Your task to perform on an android device: turn on improve location accuracy Image 0: 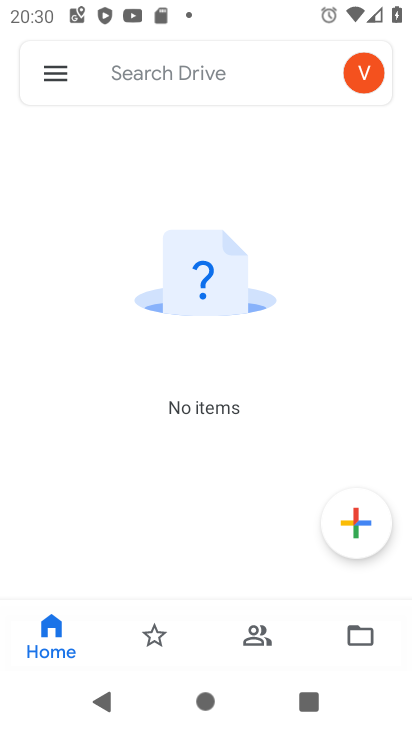
Step 0: press home button
Your task to perform on an android device: turn on improve location accuracy Image 1: 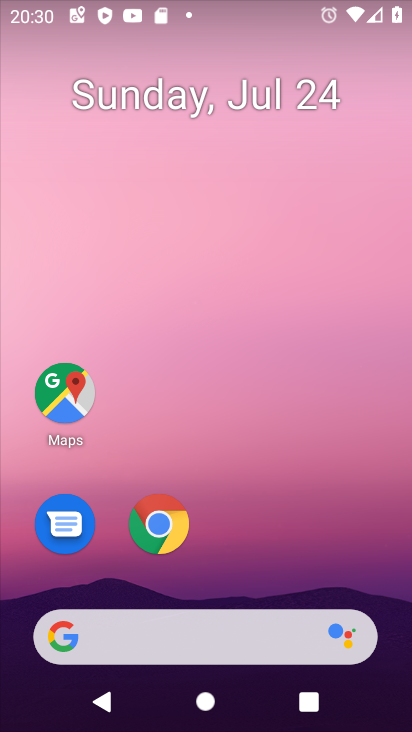
Step 1: drag from (237, 584) to (282, 38)
Your task to perform on an android device: turn on improve location accuracy Image 2: 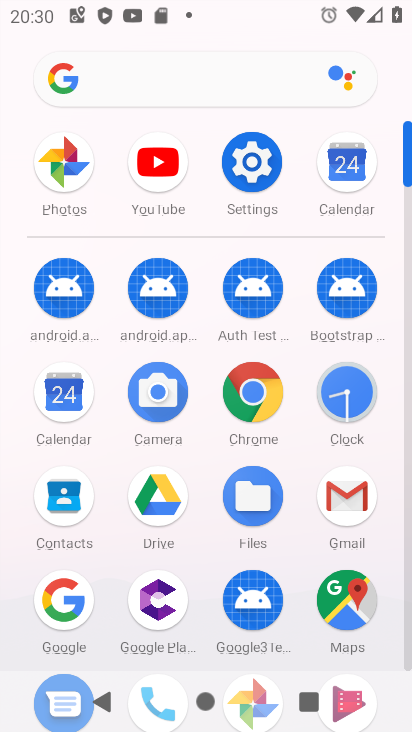
Step 2: click (255, 160)
Your task to perform on an android device: turn on improve location accuracy Image 3: 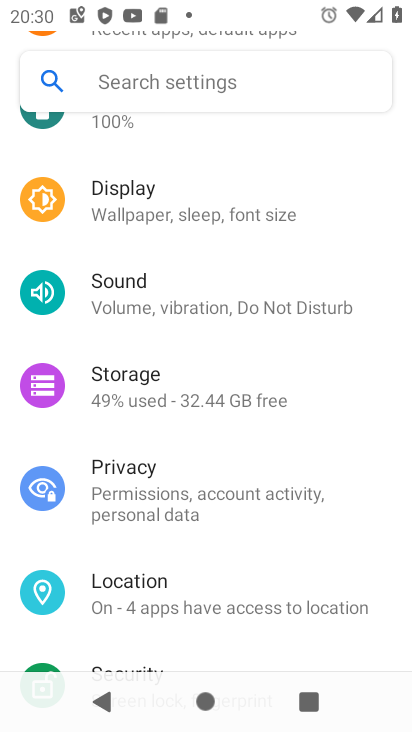
Step 3: click (188, 600)
Your task to perform on an android device: turn on improve location accuracy Image 4: 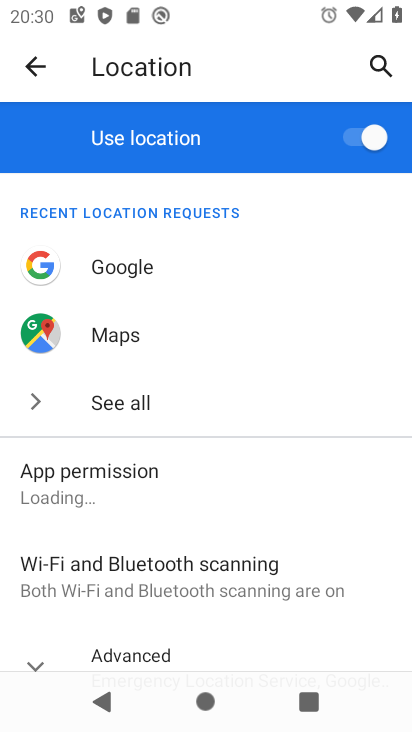
Step 4: drag from (261, 497) to (305, 142)
Your task to perform on an android device: turn on improve location accuracy Image 5: 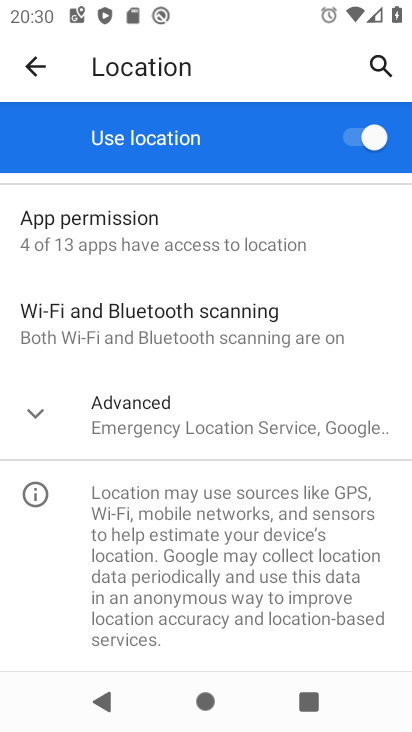
Step 5: click (40, 416)
Your task to perform on an android device: turn on improve location accuracy Image 6: 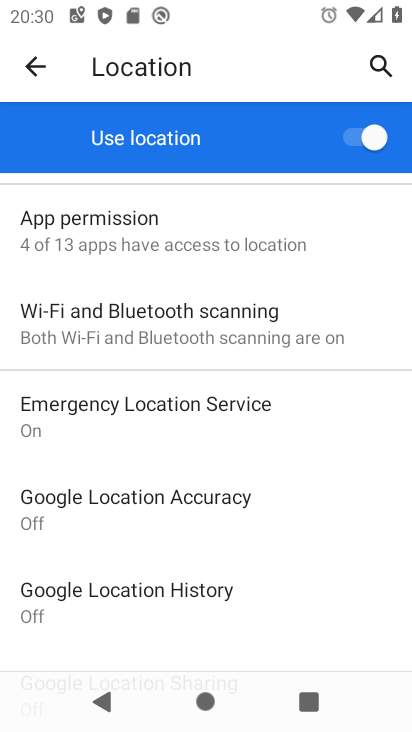
Step 6: click (87, 510)
Your task to perform on an android device: turn on improve location accuracy Image 7: 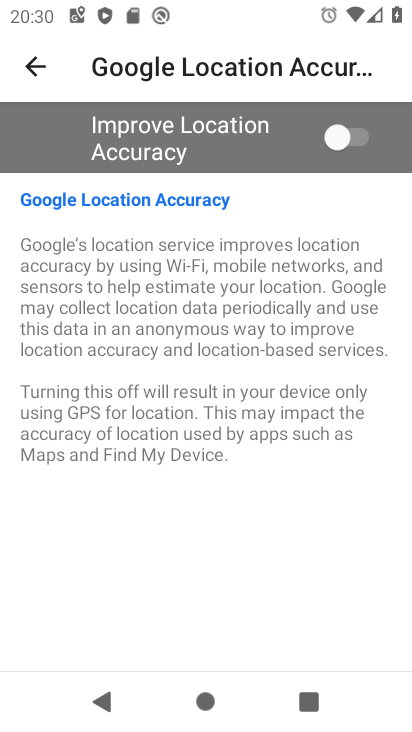
Step 7: click (356, 136)
Your task to perform on an android device: turn on improve location accuracy Image 8: 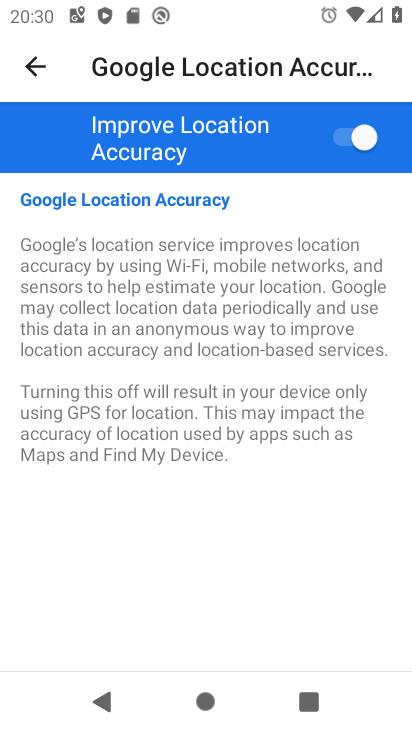
Step 8: task complete